Your task to perform on an android device: Go to network settings Image 0: 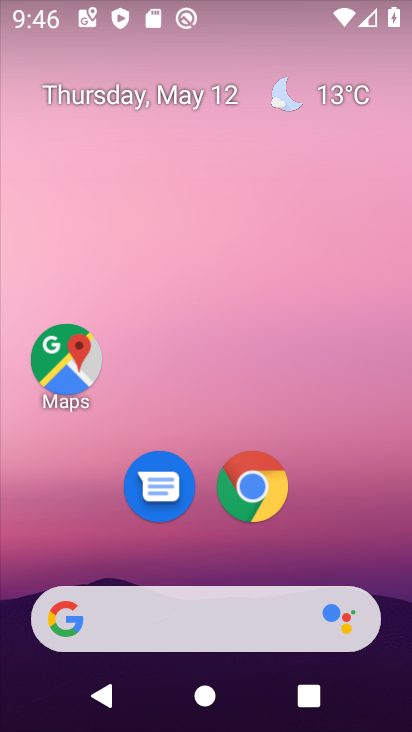
Step 0: drag from (371, 481) to (241, 87)
Your task to perform on an android device: Go to network settings Image 1: 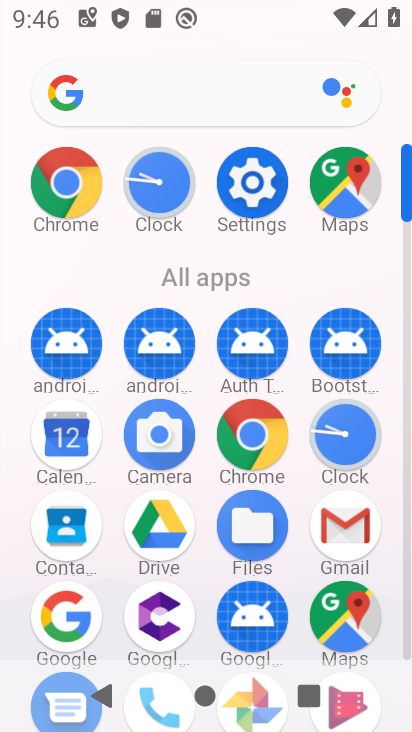
Step 1: click (244, 206)
Your task to perform on an android device: Go to network settings Image 2: 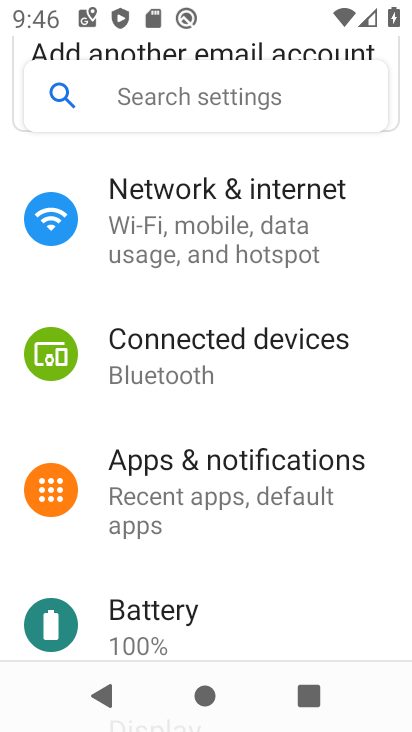
Step 2: click (228, 255)
Your task to perform on an android device: Go to network settings Image 3: 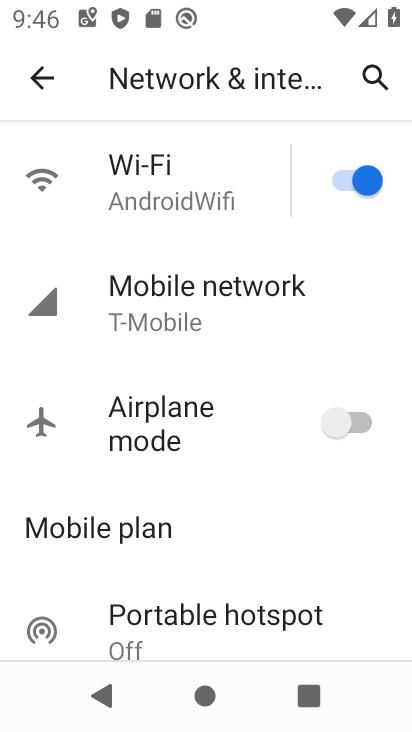
Step 3: task complete